Your task to perform on an android device: see creations saved in the google photos Image 0: 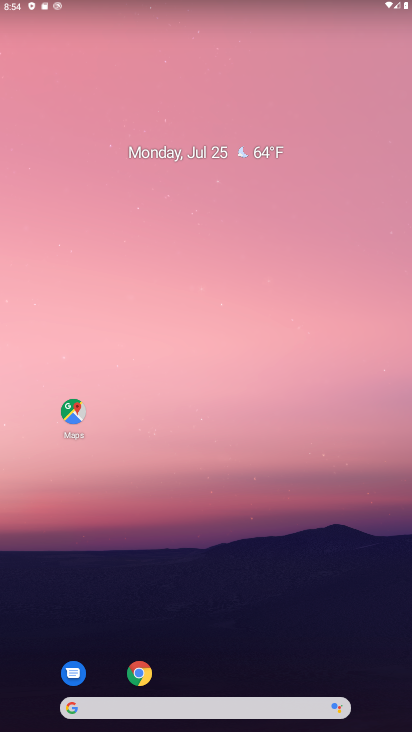
Step 0: press home button
Your task to perform on an android device: see creations saved in the google photos Image 1: 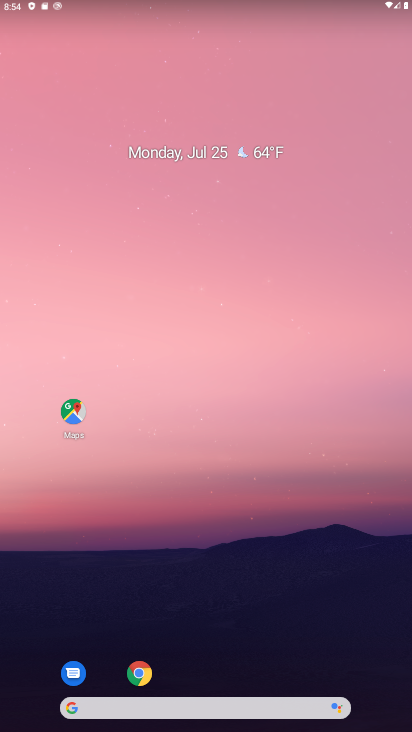
Step 1: drag from (219, 683) to (242, 92)
Your task to perform on an android device: see creations saved in the google photos Image 2: 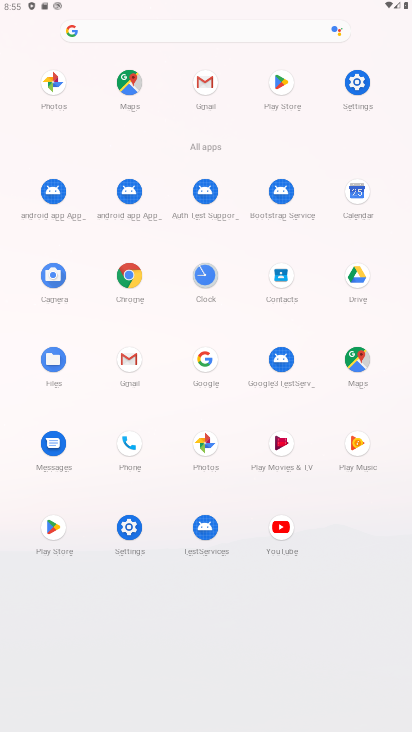
Step 2: click (202, 436)
Your task to perform on an android device: see creations saved in the google photos Image 3: 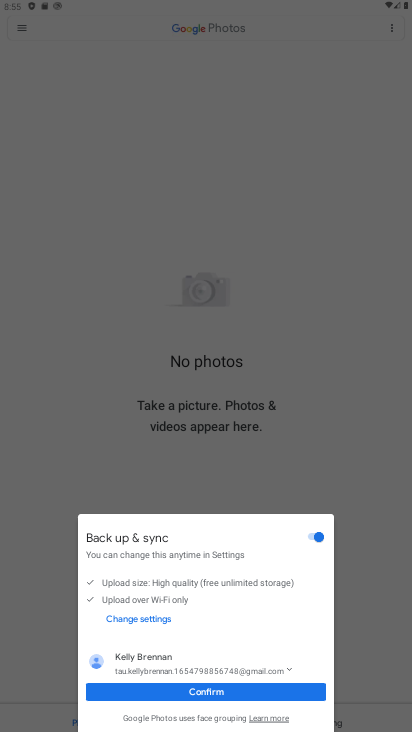
Step 3: click (208, 687)
Your task to perform on an android device: see creations saved in the google photos Image 4: 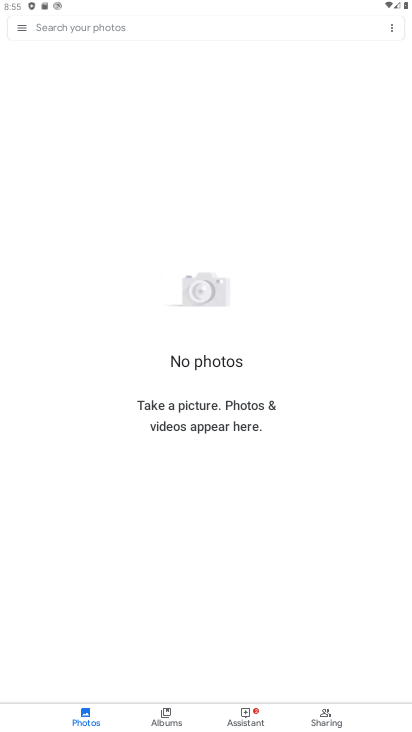
Step 4: click (91, 23)
Your task to perform on an android device: see creations saved in the google photos Image 5: 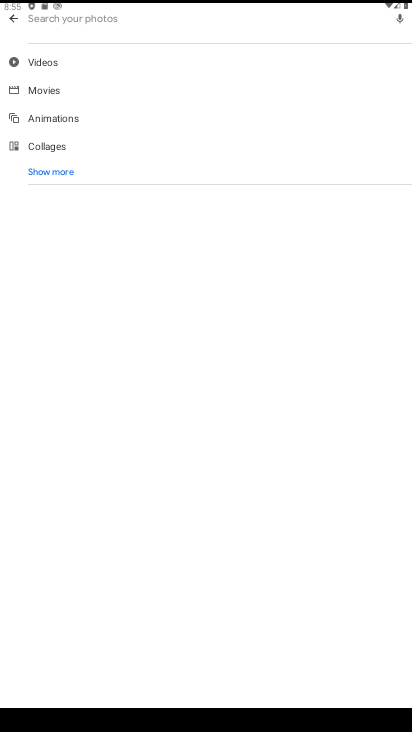
Step 5: click (56, 170)
Your task to perform on an android device: see creations saved in the google photos Image 6: 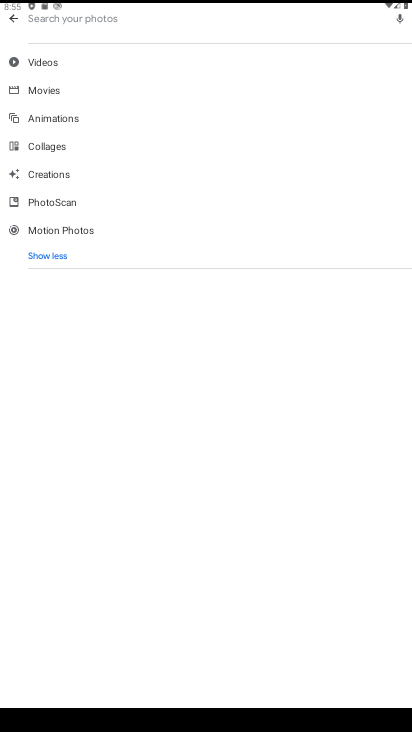
Step 6: click (53, 171)
Your task to perform on an android device: see creations saved in the google photos Image 7: 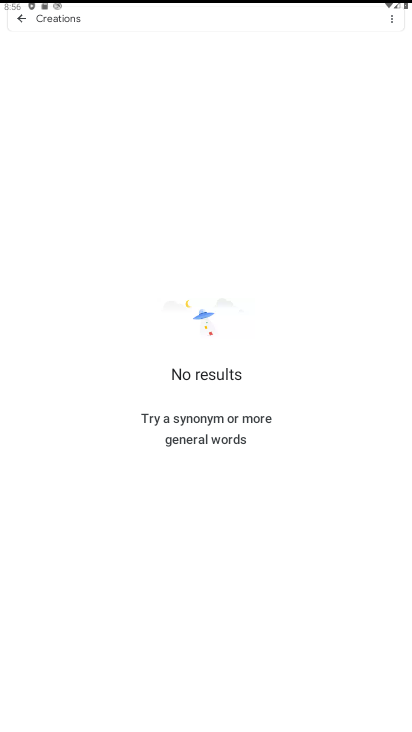
Step 7: task complete